Your task to perform on an android device: Go to notification settings Image 0: 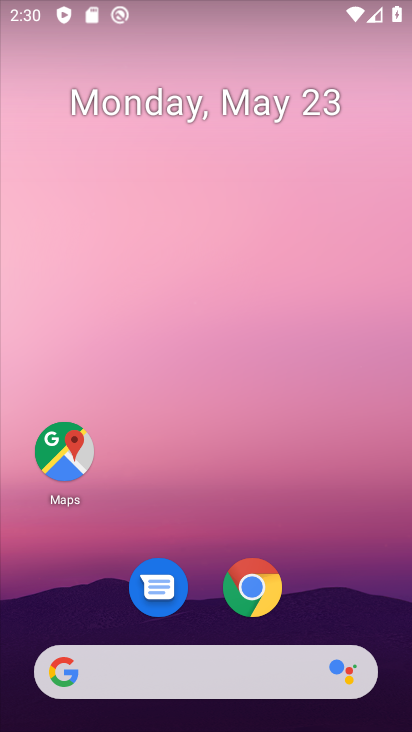
Step 0: drag from (190, 606) to (179, 160)
Your task to perform on an android device: Go to notification settings Image 1: 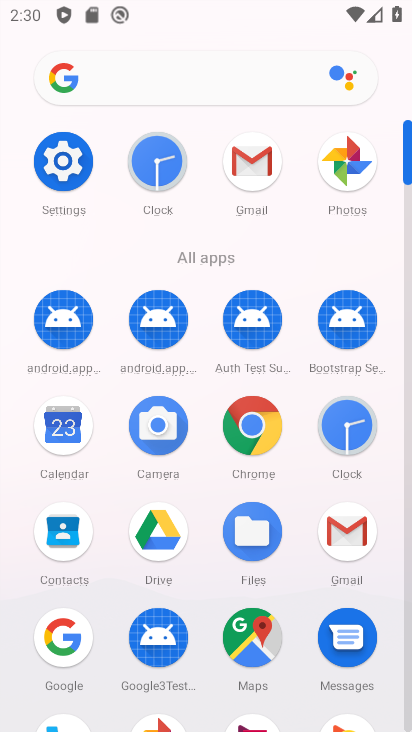
Step 1: click (65, 163)
Your task to perform on an android device: Go to notification settings Image 2: 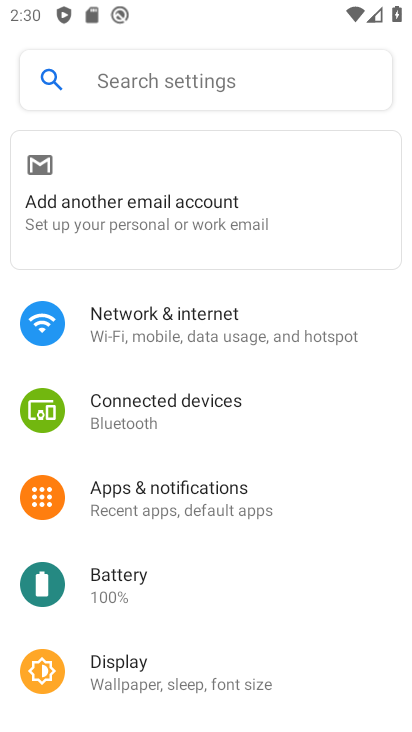
Step 2: click (168, 495)
Your task to perform on an android device: Go to notification settings Image 3: 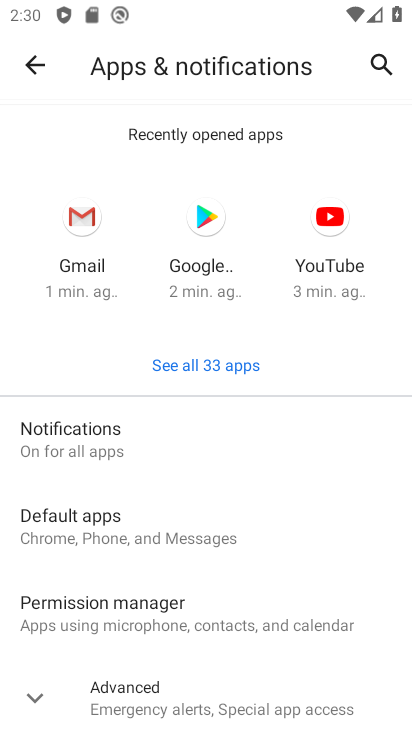
Step 3: task complete